Your task to perform on an android device: Show me the alarms in the clock app Image 0: 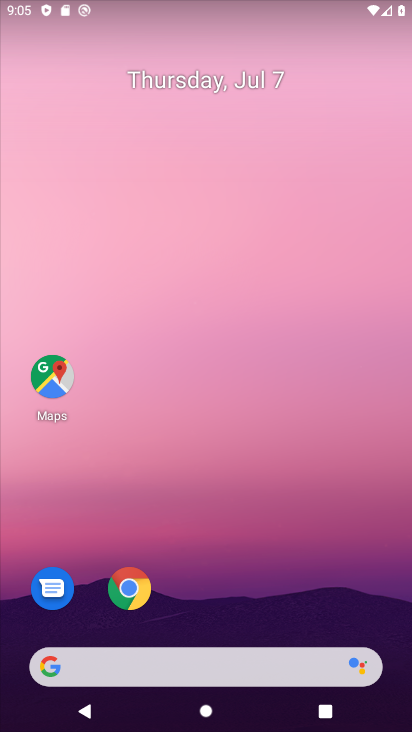
Step 0: click (207, 274)
Your task to perform on an android device: Show me the alarms in the clock app Image 1: 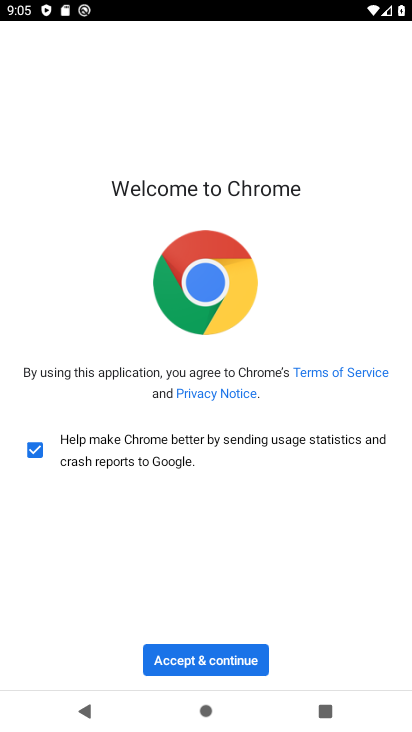
Step 1: press back button
Your task to perform on an android device: Show me the alarms in the clock app Image 2: 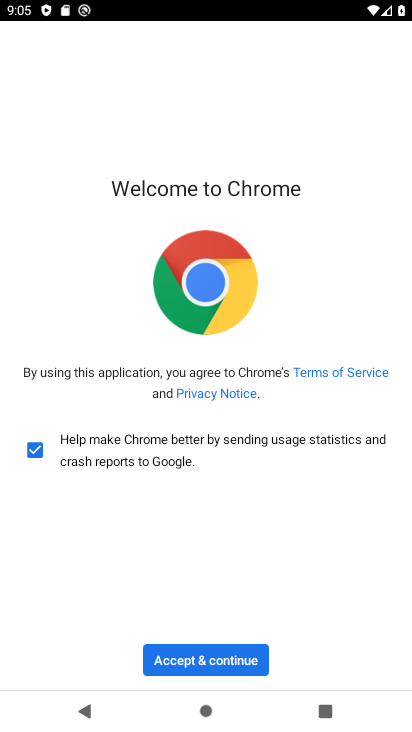
Step 2: press back button
Your task to perform on an android device: Show me the alarms in the clock app Image 3: 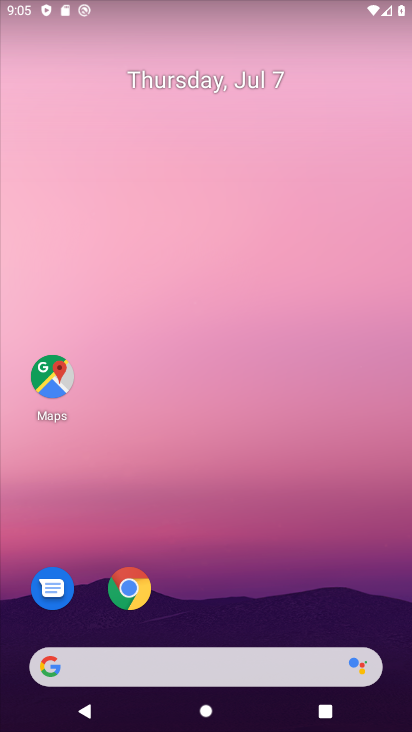
Step 3: drag from (257, 634) to (145, 134)
Your task to perform on an android device: Show me the alarms in the clock app Image 4: 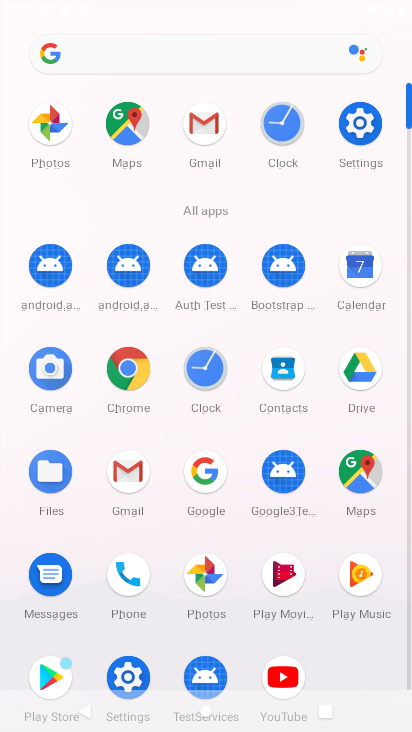
Step 4: click (209, 375)
Your task to perform on an android device: Show me the alarms in the clock app Image 5: 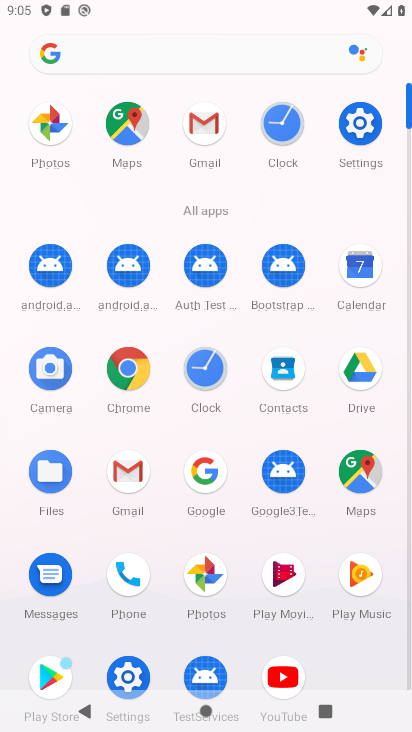
Step 5: click (212, 371)
Your task to perform on an android device: Show me the alarms in the clock app Image 6: 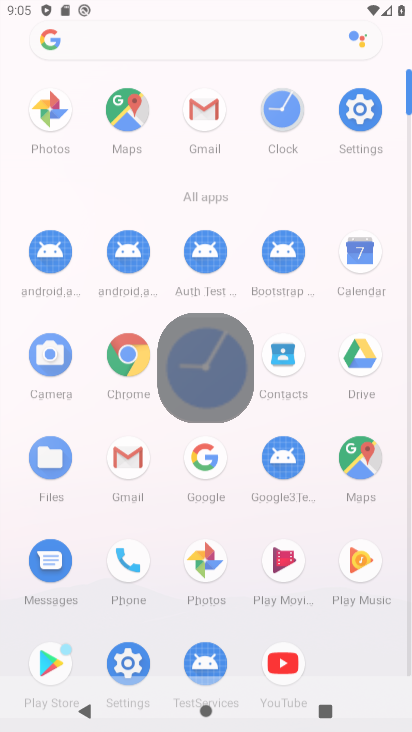
Step 6: click (214, 370)
Your task to perform on an android device: Show me the alarms in the clock app Image 7: 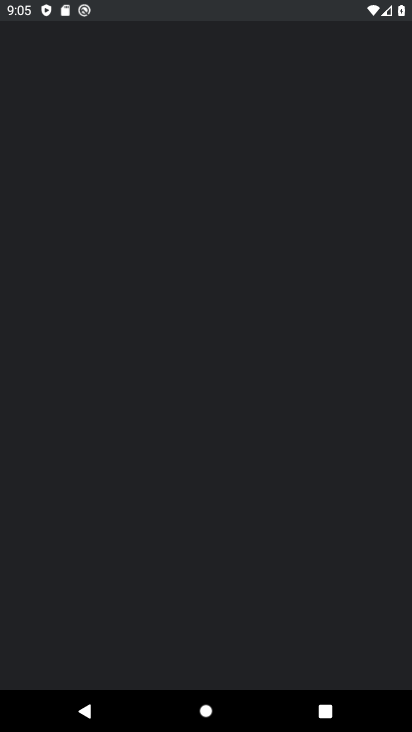
Step 7: click (215, 370)
Your task to perform on an android device: Show me the alarms in the clock app Image 8: 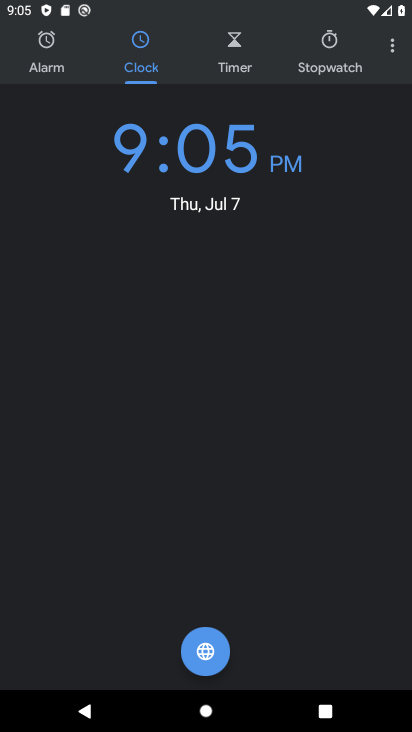
Step 8: click (48, 48)
Your task to perform on an android device: Show me the alarms in the clock app Image 9: 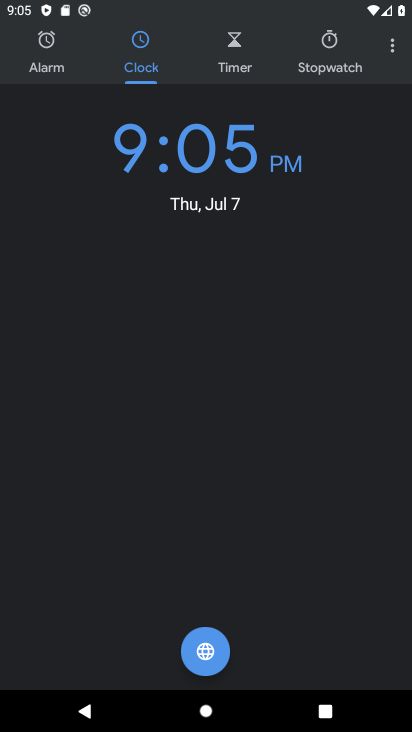
Step 9: click (45, 52)
Your task to perform on an android device: Show me the alarms in the clock app Image 10: 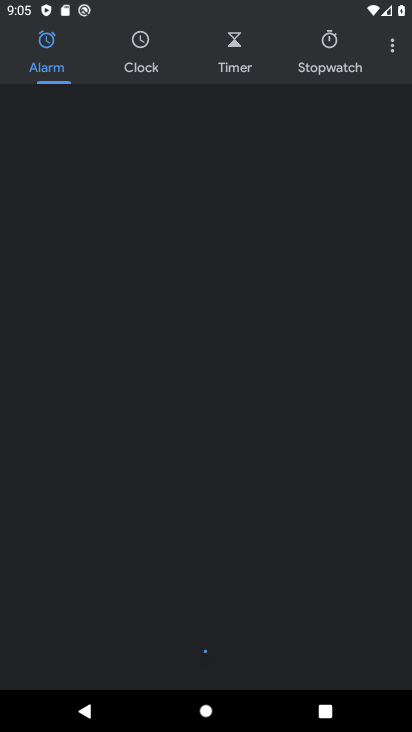
Step 10: click (47, 52)
Your task to perform on an android device: Show me the alarms in the clock app Image 11: 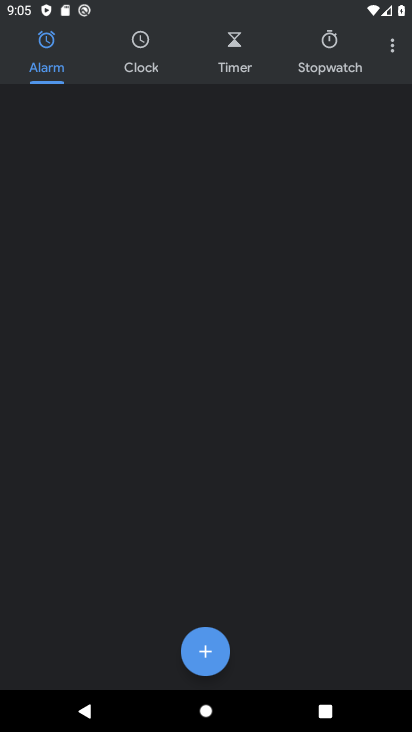
Step 11: task complete